Your task to perform on an android device: open a bookmark in the chrome app Image 0: 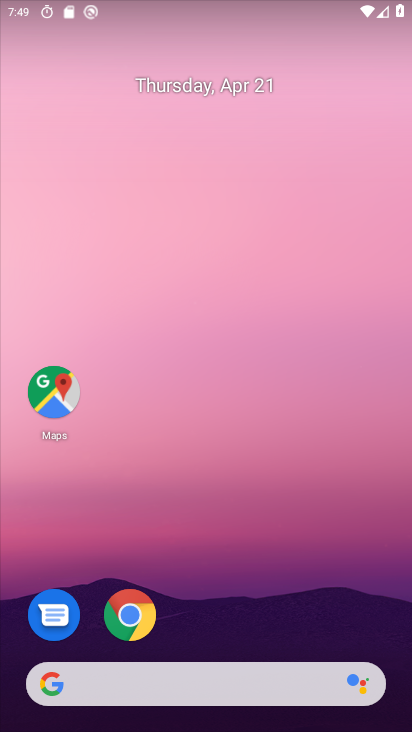
Step 0: drag from (172, 684) to (314, 237)
Your task to perform on an android device: open a bookmark in the chrome app Image 1: 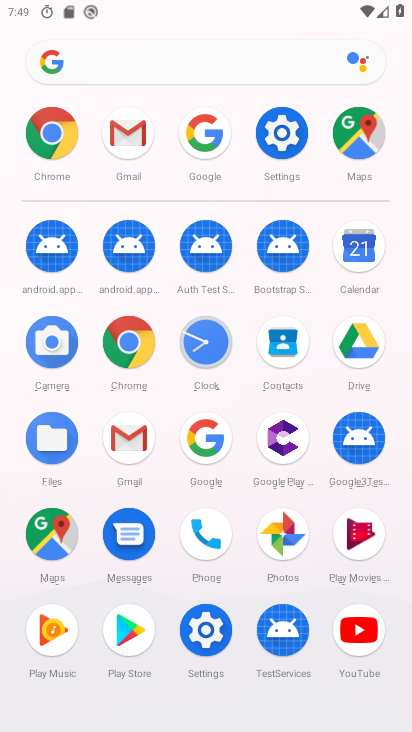
Step 1: click (43, 139)
Your task to perform on an android device: open a bookmark in the chrome app Image 2: 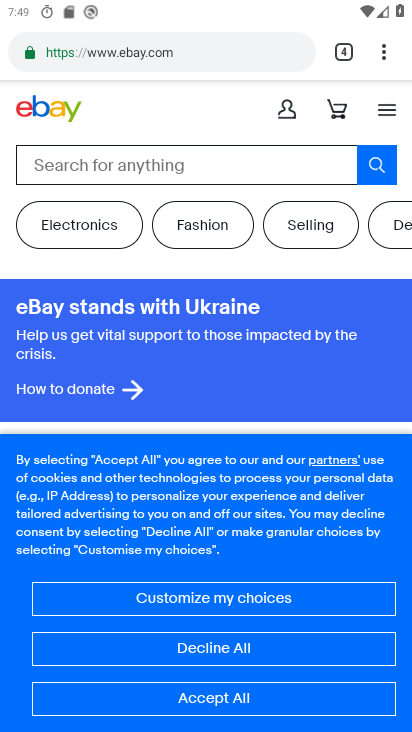
Step 2: click (379, 62)
Your task to perform on an android device: open a bookmark in the chrome app Image 3: 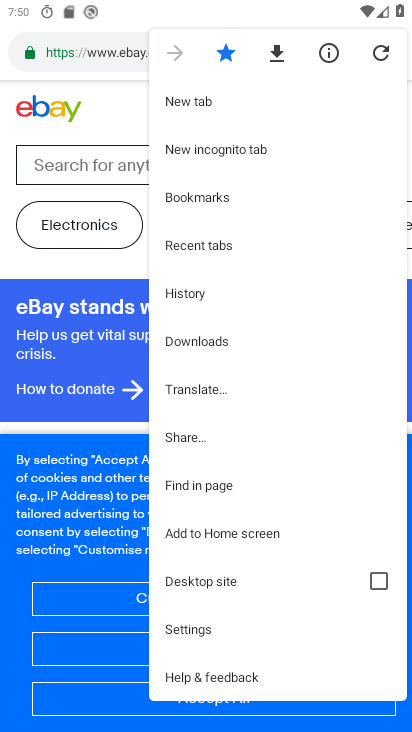
Step 3: click (210, 195)
Your task to perform on an android device: open a bookmark in the chrome app Image 4: 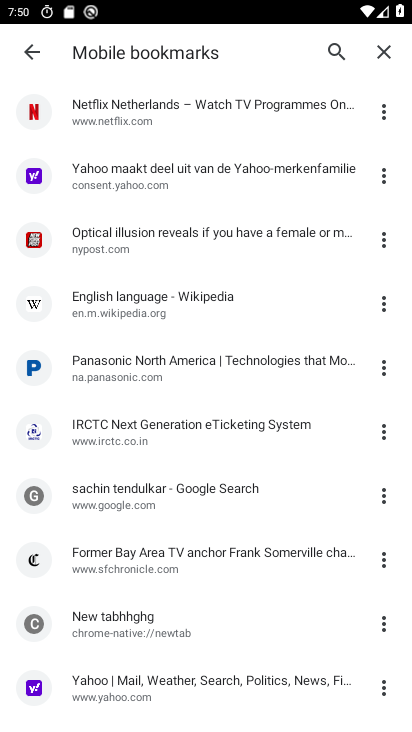
Step 4: task complete